Your task to perform on an android device: Search for vegetarian restaurants on Maps Image 0: 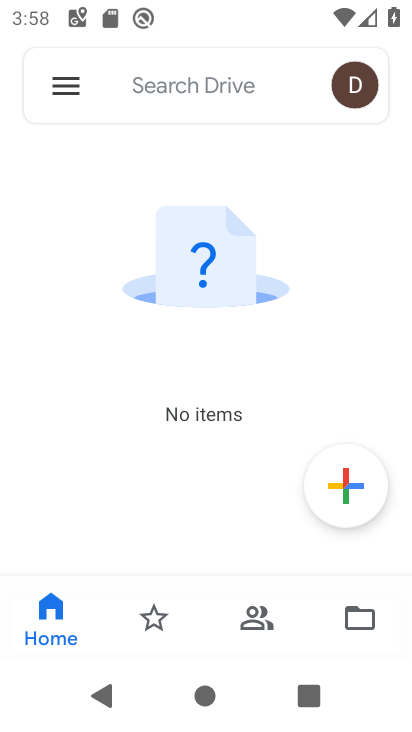
Step 0: press back button
Your task to perform on an android device: Search for vegetarian restaurants on Maps Image 1: 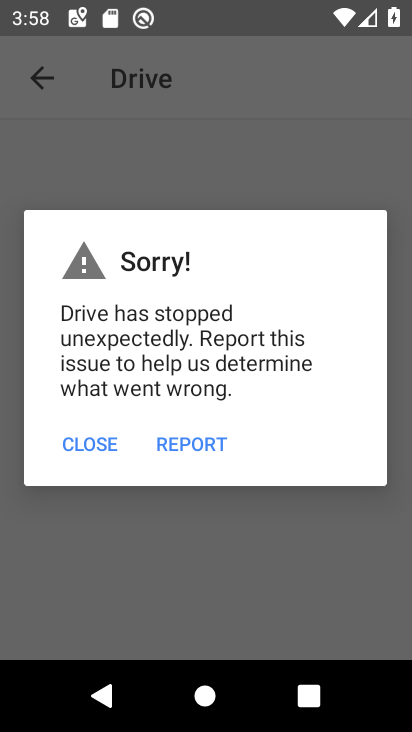
Step 1: click (89, 445)
Your task to perform on an android device: Search for vegetarian restaurants on Maps Image 2: 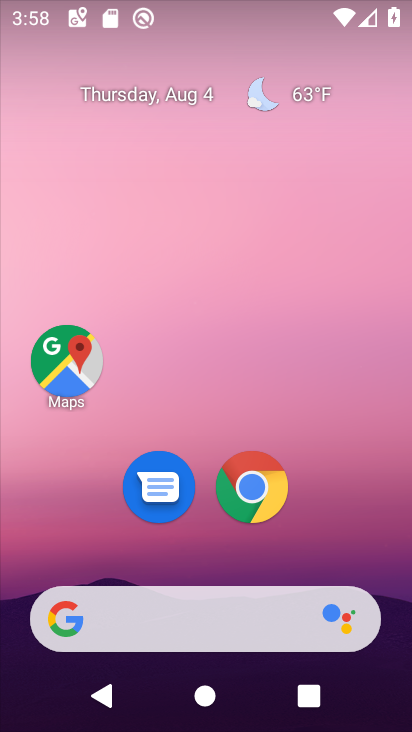
Step 2: drag from (95, 524) to (247, 57)
Your task to perform on an android device: Search for vegetarian restaurants on Maps Image 3: 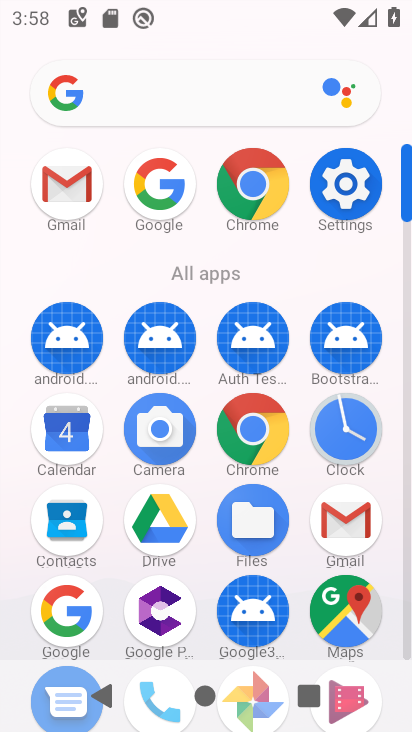
Step 3: click (334, 600)
Your task to perform on an android device: Search for vegetarian restaurants on Maps Image 4: 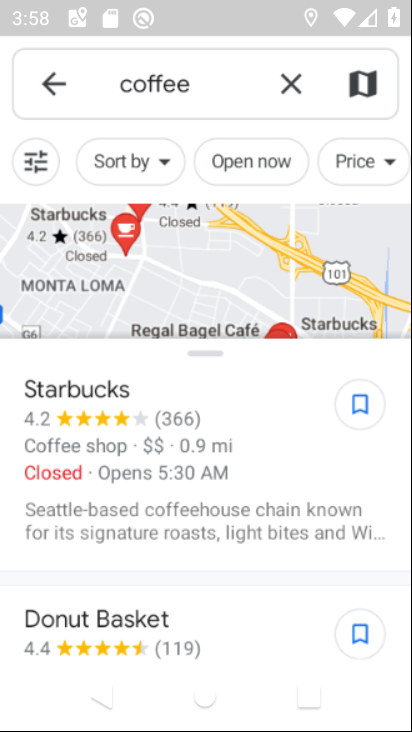
Step 4: click (286, 84)
Your task to perform on an android device: Search for vegetarian restaurants on Maps Image 5: 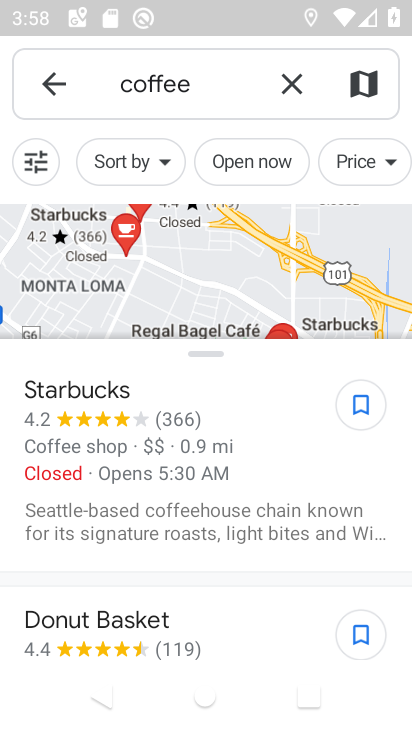
Step 5: click (298, 74)
Your task to perform on an android device: Search for vegetarian restaurants on Maps Image 6: 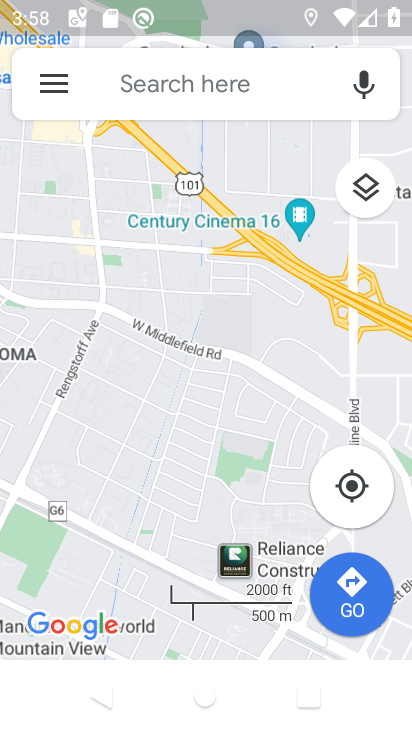
Step 6: click (180, 84)
Your task to perform on an android device: Search for vegetarian restaurants on Maps Image 7: 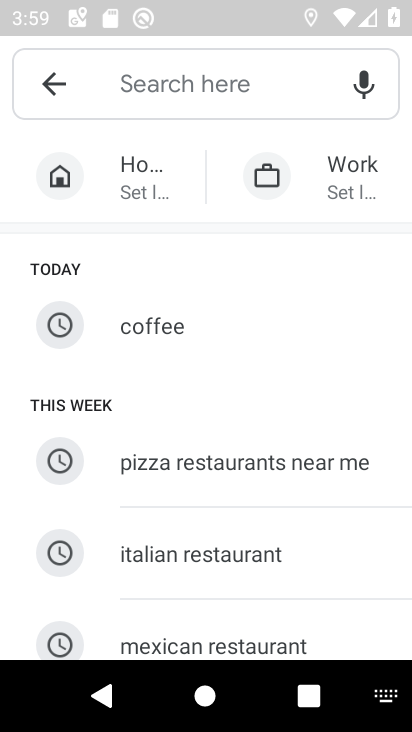
Step 7: type "vegetarian"
Your task to perform on an android device: Search for vegetarian restaurants on Maps Image 8: 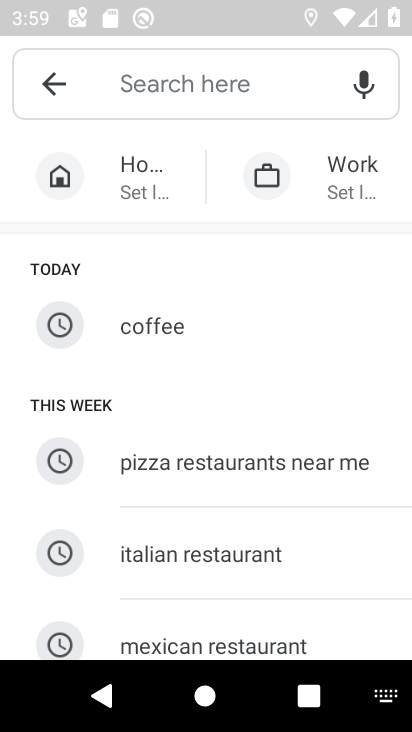
Step 8: click (322, 13)
Your task to perform on an android device: Search for vegetarian restaurants on Maps Image 9: 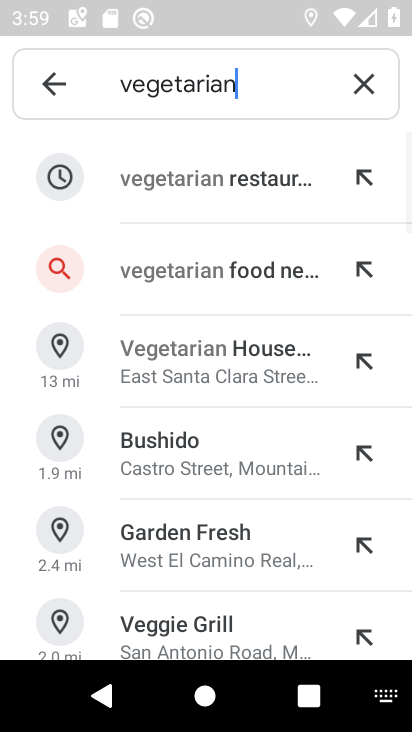
Step 9: click (211, 173)
Your task to perform on an android device: Search for vegetarian restaurants on Maps Image 10: 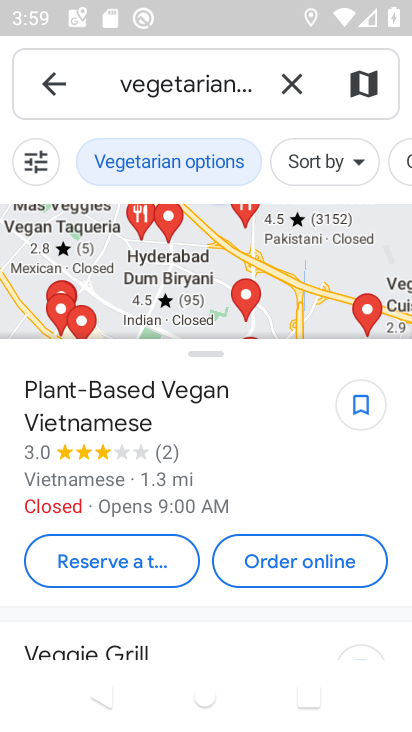
Step 10: task complete